Your task to perform on an android device: Clear all items from cart on amazon. Image 0: 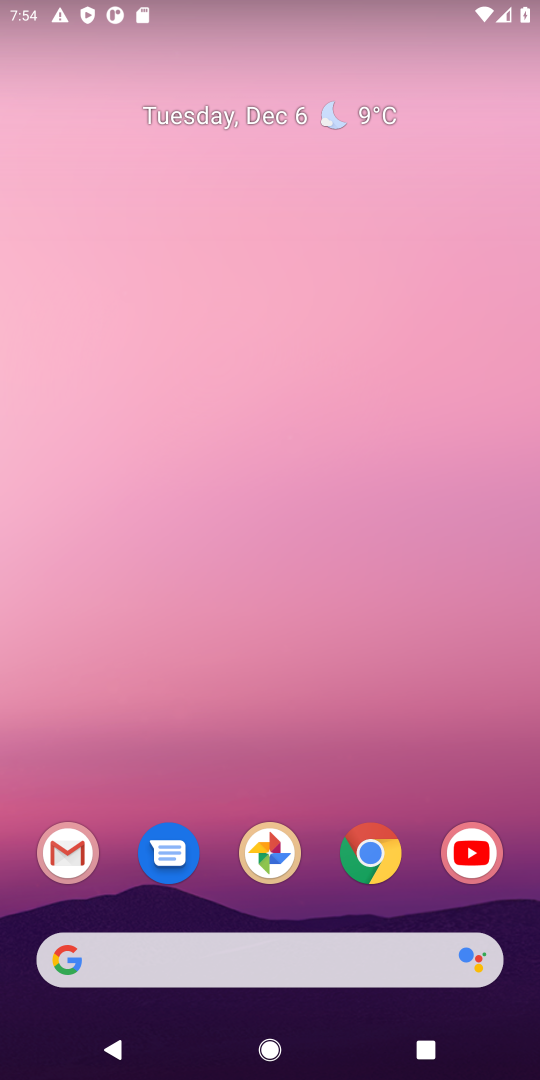
Step 0: click (368, 856)
Your task to perform on an android device: Clear all items from cart on amazon. Image 1: 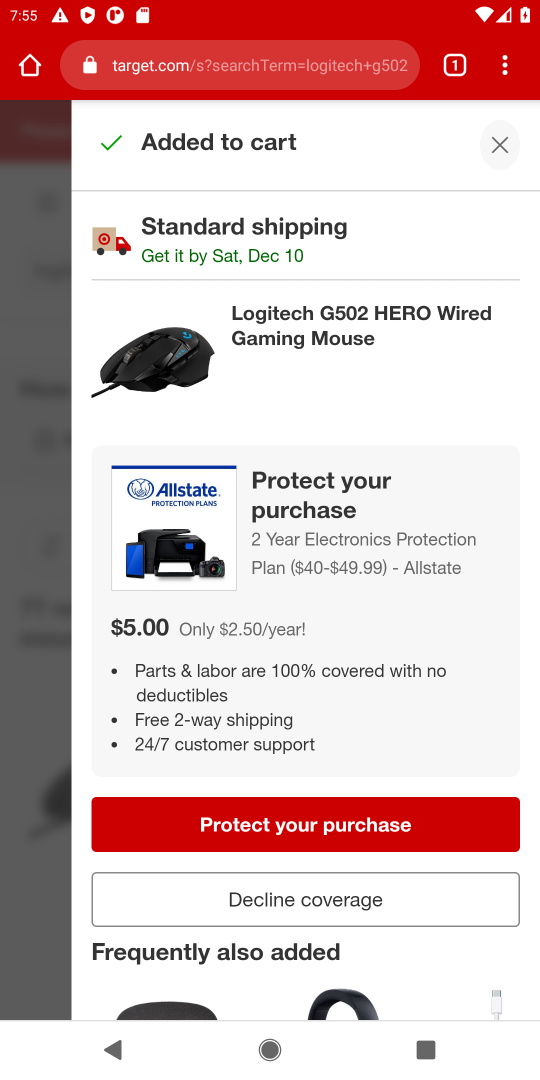
Step 1: click (307, 60)
Your task to perform on an android device: Clear all items from cart on amazon. Image 2: 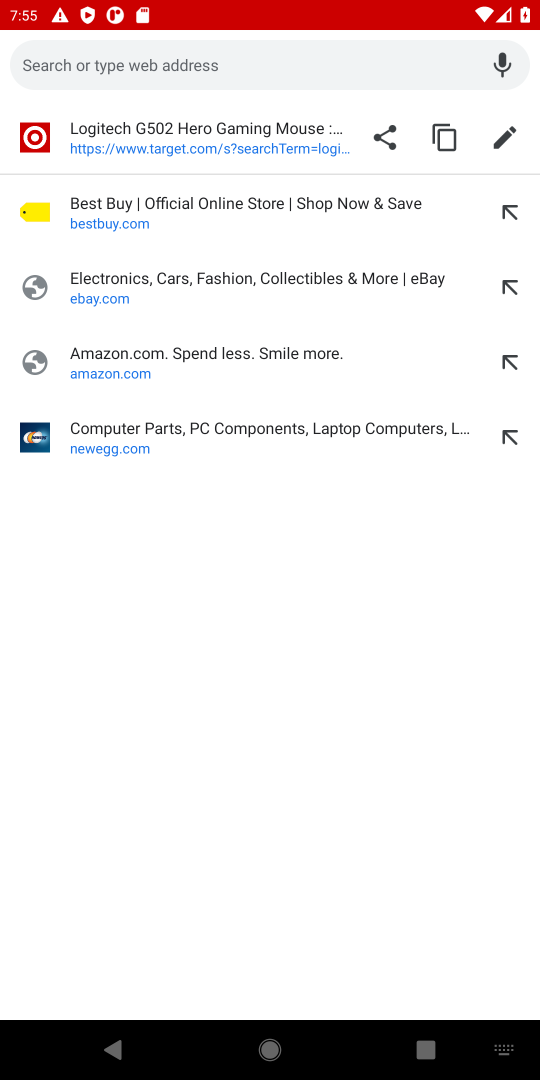
Step 2: click (494, 143)
Your task to perform on an android device: Clear all items from cart on amazon. Image 3: 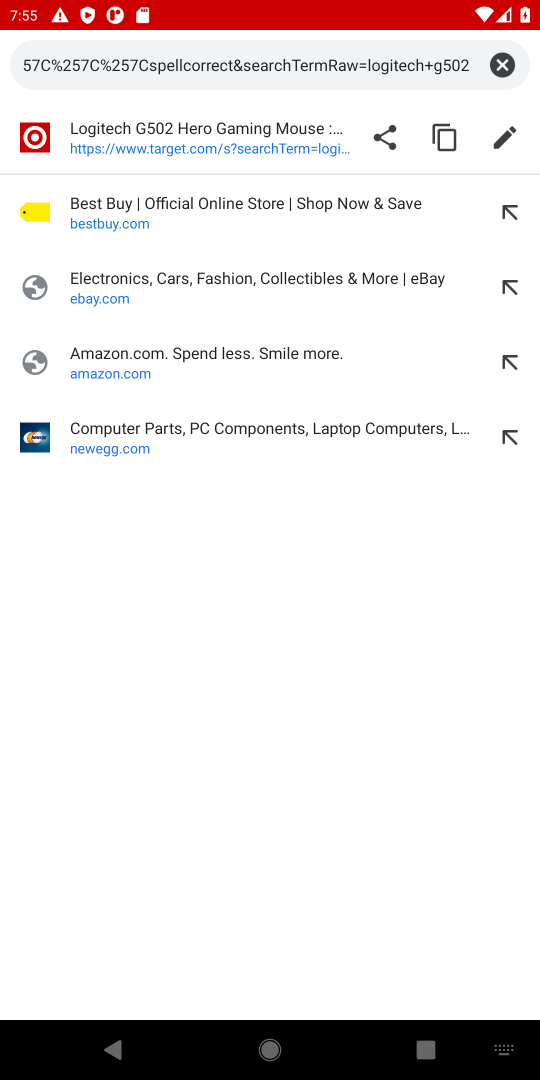
Step 3: click (255, 360)
Your task to perform on an android device: Clear all items from cart on amazon. Image 4: 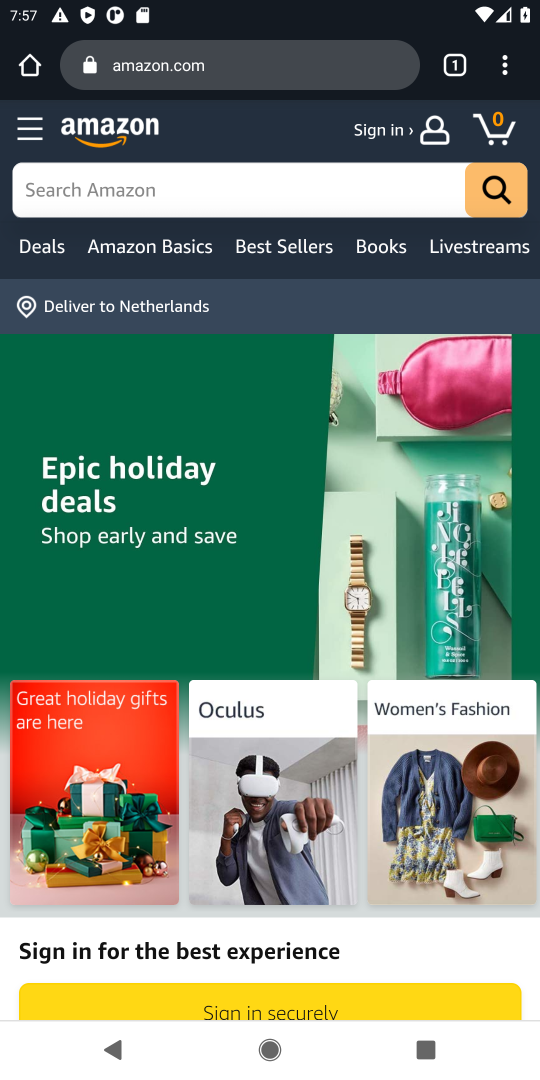
Step 4: task complete